Your task to perform on an android device: Open privacy settings Image 0: 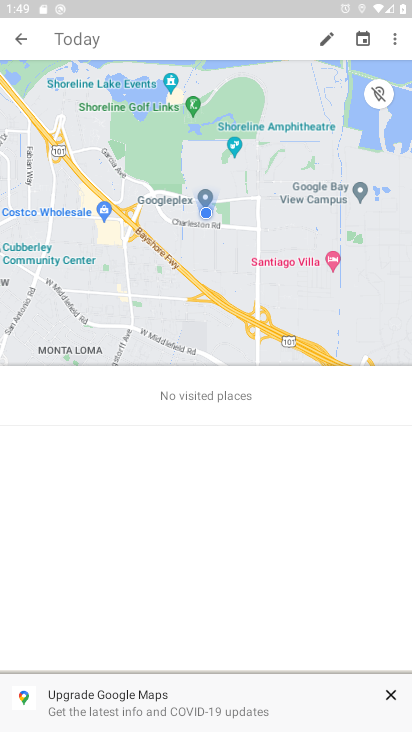
Step 0: press home button
Your task to perform on an android device: Open privacy settings Image 1: 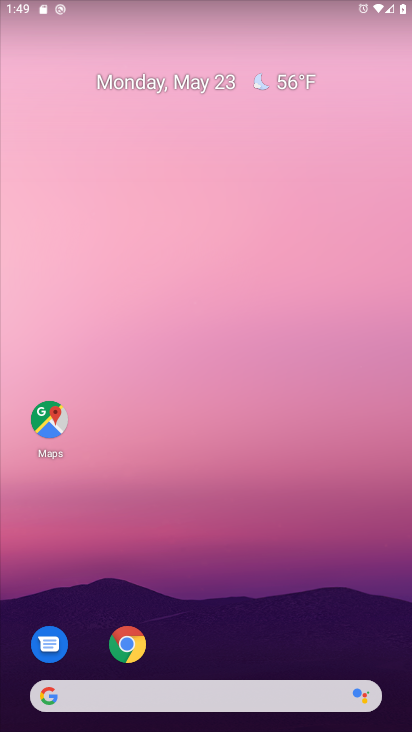
Step 1: drag from (227, 634) to (241, 260)
Your task to perform on an android device: Open privacy settings Image 2: 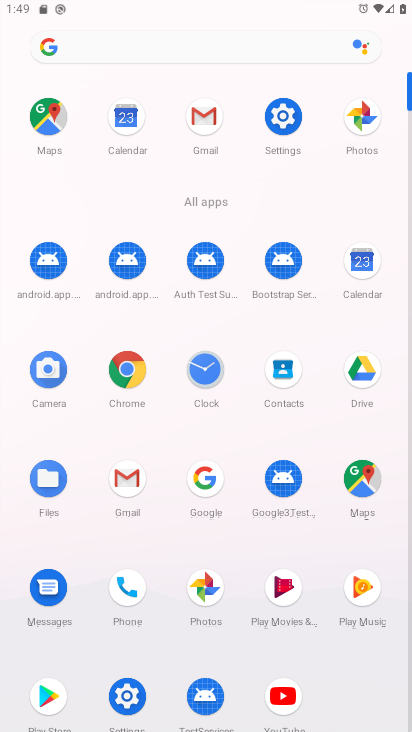
Step 2: click (280, 120)
Your task to perform on an android device: Open privacy settings Image 3: 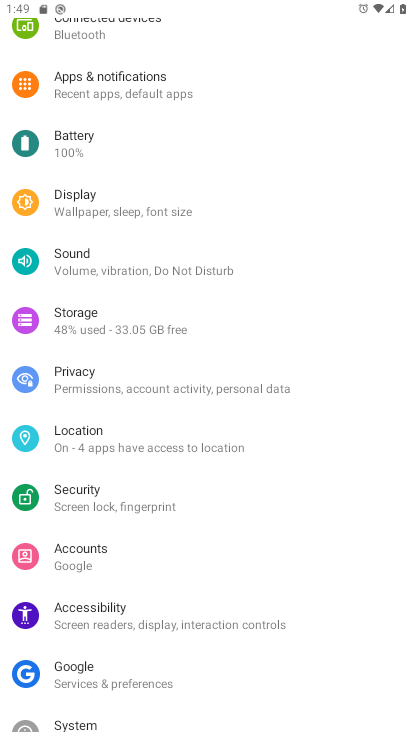
Step 3: click (80, 371)
Your task to perform on an android device: Open privacy settings Image 4: 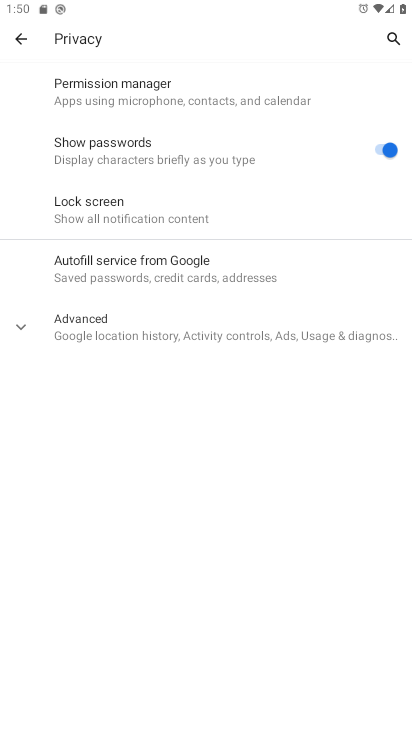
Step 4: task complete